Your task to perform on an android device: Search for pizza restaurants on Maps Image 0: 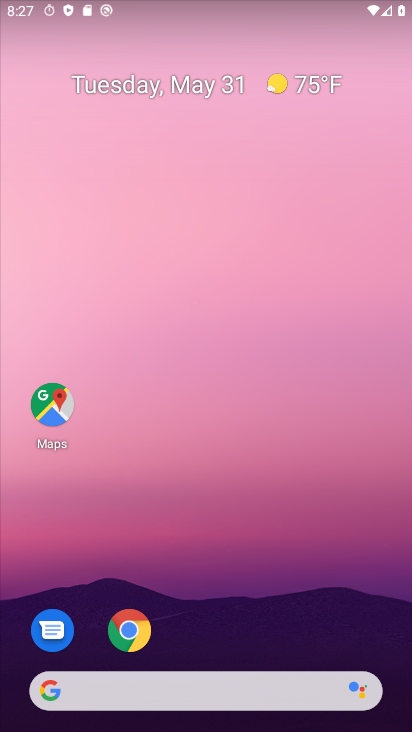
Step 0: drag from (184, 553) to (241, 178)
Your task to perform on an android device: Search for pizza restaurants on Maps Image 1: 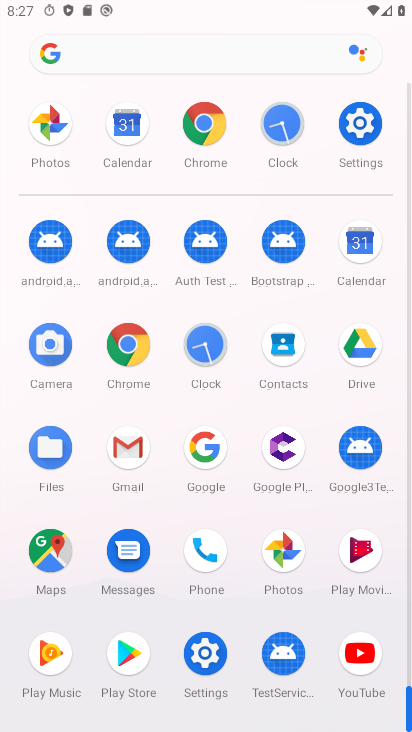
Step 1: click (51, 560)
Your task to perform on an android device: Search for pizza restaurants on Maps Image 2: 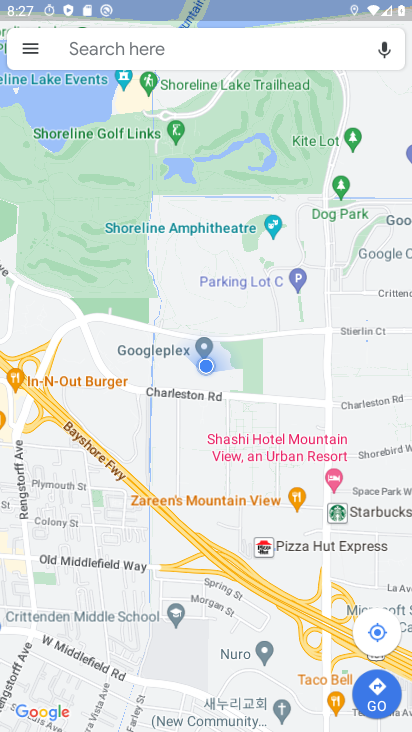
Step 2: click (142, 55)
Your task to perform on an android device: Search for pizza restaurants on Maps Image 3: 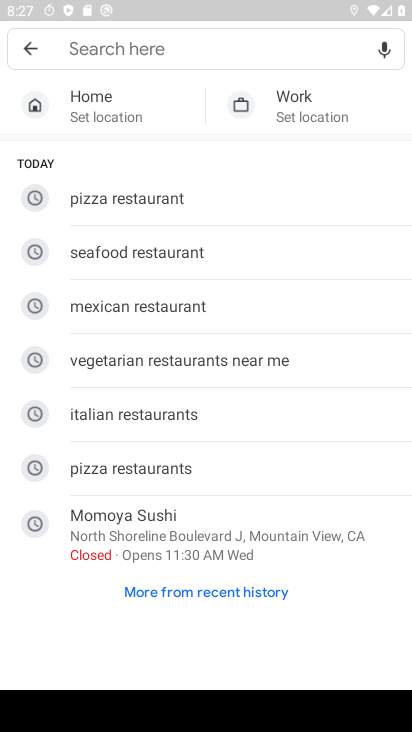
Step 3: click (209, 463)
Your task to perform on an android device: Search for pizza restaurants on Maps Image 4: 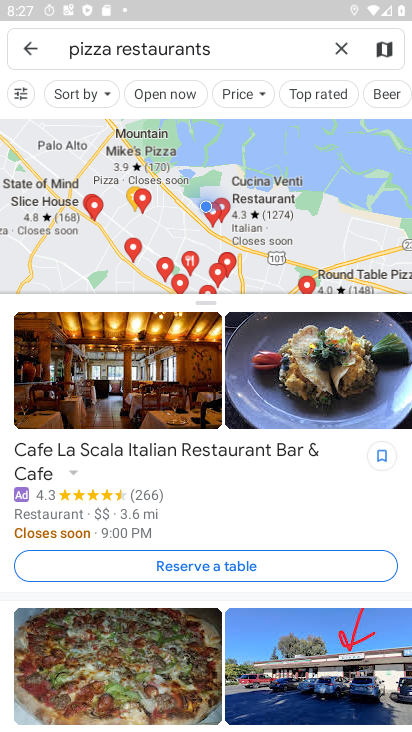
Step 4: task complete